Your task to perform on an android device: Open the calendar app, open the side menu, and click the "Day" option Image 0: 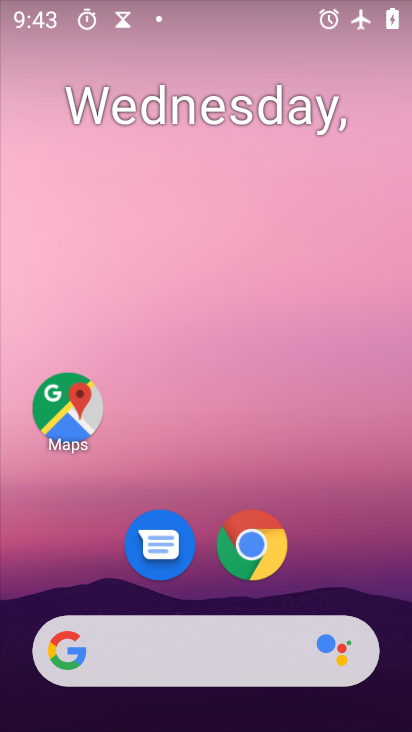
Step 0: drag from (203, 668) to (306, 260)
Your task to perform on an android device: Open the calendar app, open the side menu, and click the "Day" option Image 1: 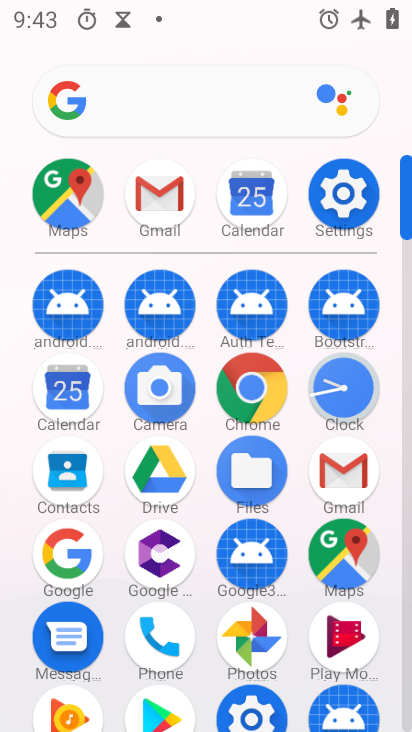
Step 1: click (69, 389)
Your task to perform on an android device: Open the calendar app, open the side menu, and click the "Day" option Image 2: 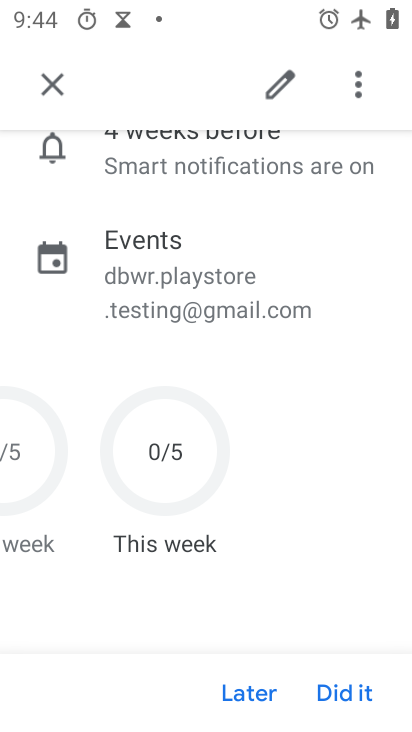
Step 2: click (49, 91)
Your task to perform on an android device: Open the calendar app, open the side menu, and click the "Day" option Image 3: 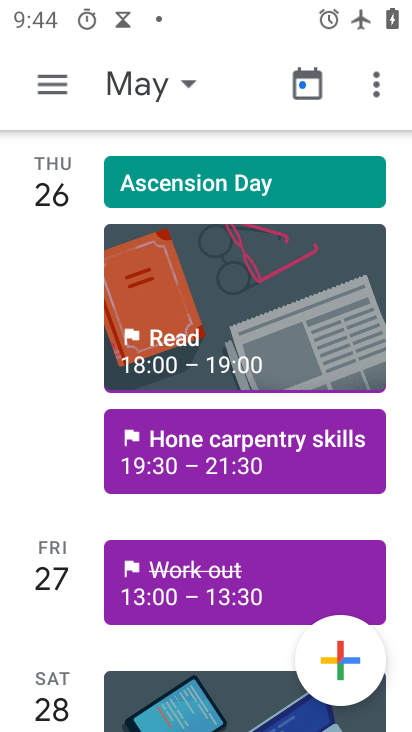
Step 3: click (58, 86)
Your task to perform on an android device: Open the calendar app, open the side menu, and click the "Day" option Image 4: 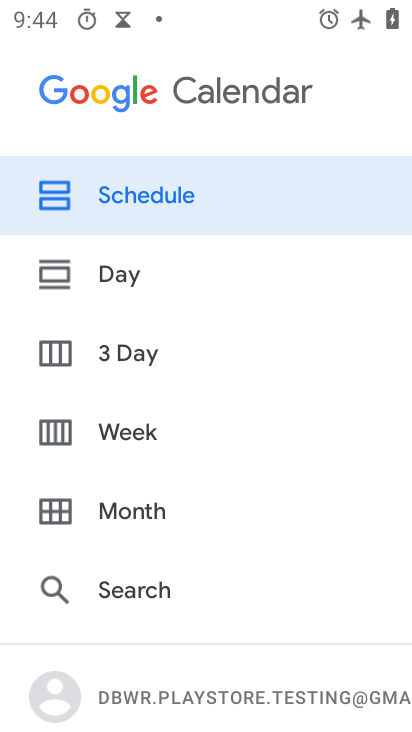
Step 4: click (116, 277)
Your task to perform on an android device: Open the calendar app, open the side menu, and click the "Day" option Image 5: 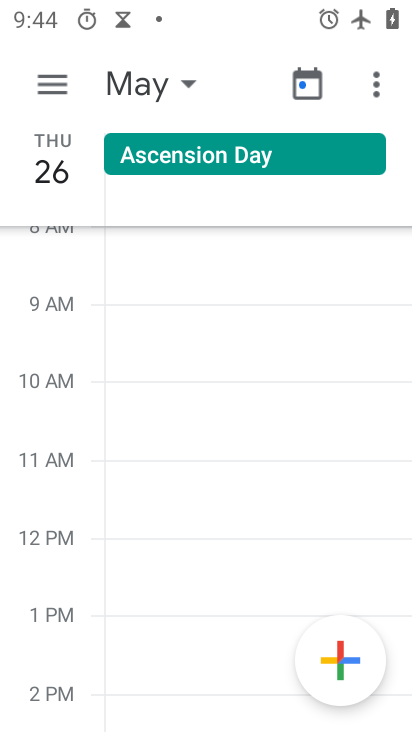
Step 5: task complete